Your task to perform on an android device: Search for Mexican restaurants on Maps Image 0: 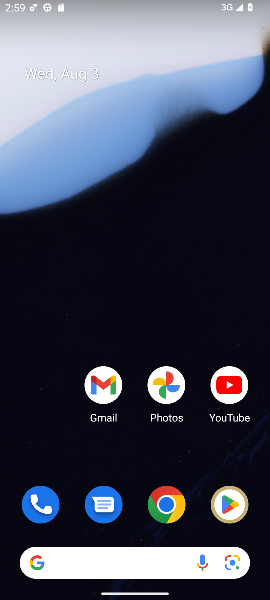
Step 0: drag from (51, 436) to (68, 90)
Your task to perform on an android device: Search for Mexican restaurants on Maps Image 1: 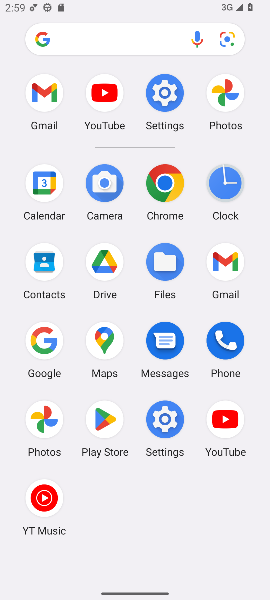
Step 1: click (109, 346)
Your task to perform on an android device: Search for Mexican restaurants on Maps Image 2: 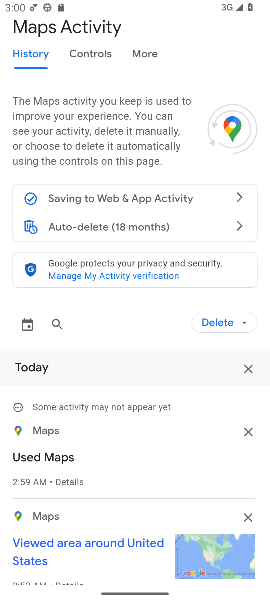
Step 2: press back button
Your task to perform on an android device: Search for Mexican restaurants on Maps Image 3: 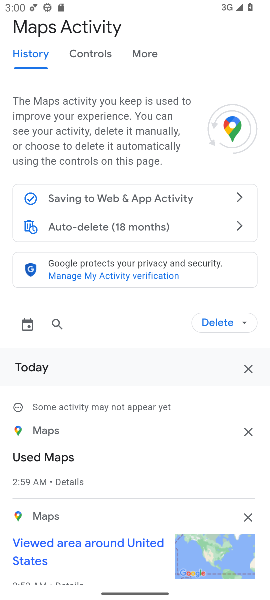
Step 3: press back button
Your task to perform on an android device: Search for Mexican restaurants on Maps Image 4: 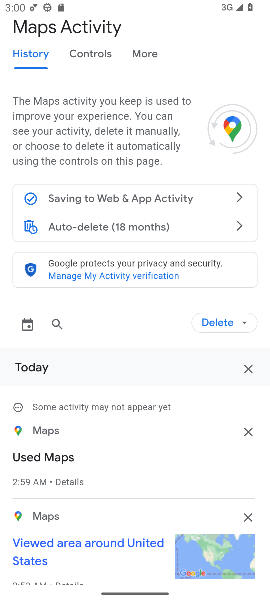
Step 4: press back button
Your task to perform on an android device: Search for Mexican restaurants on Maps Image 5: 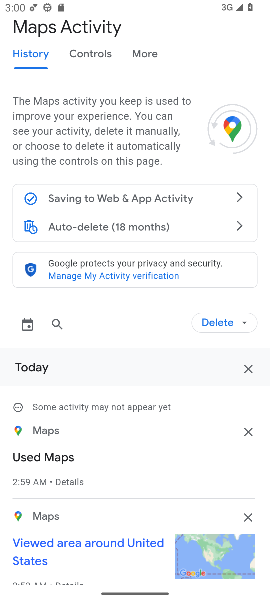
Step 5: press back button
Your task to perform on an android device: Search for Mexican restaurants on Maps Image 6: 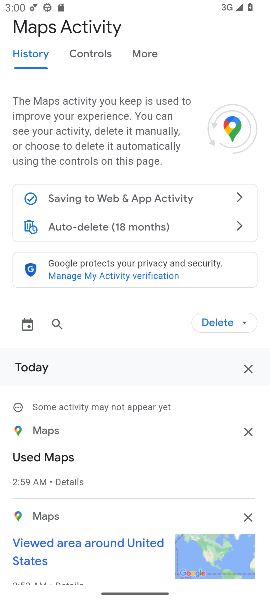
Step 6: press back button
Your task to perform on an android device: Search for Mexican restaurants on Maps Image 7: 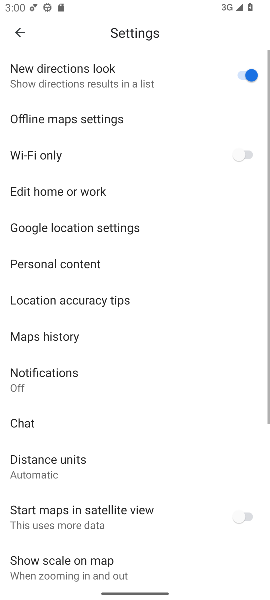
Step 7: press back button
Your task to perform on an android device: Search for Mexican restaurants on Maps Image 8: 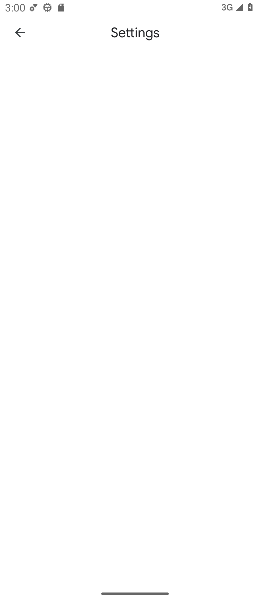
Step 8: press home button
Your task to perform on an android device: Search for Mexican restaurants on Maps Image 9: 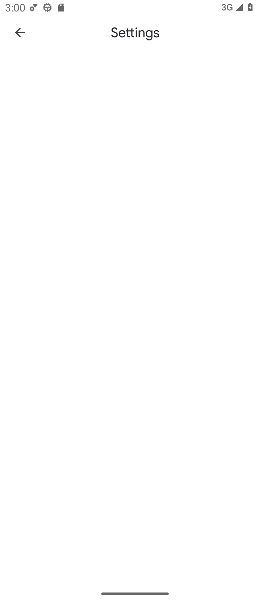
Step 9: press home button
Your task to perform on an android device: Search for Mexican restaurants on Maps Image 10: 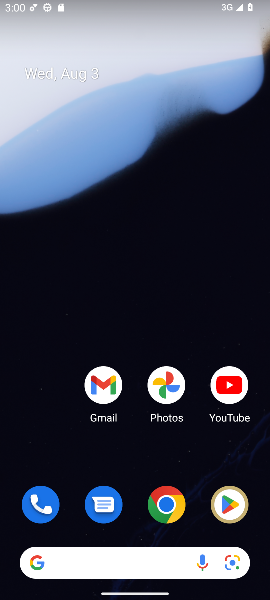
Step 10: drag from (133, 450) to (126, 128)
Your task to perform on an android device: Search for Mexican restaurants on Maps Image 11: 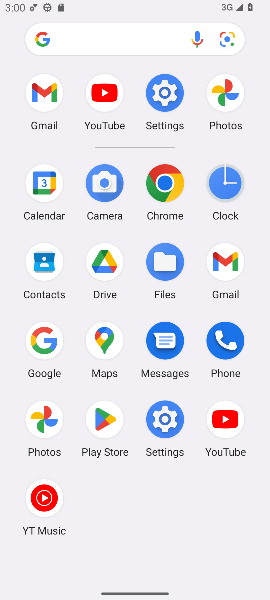
Step 11: click (109, 350)
Your task to perform on an android device: Search for Mexican restaurants on Maps Image 12: 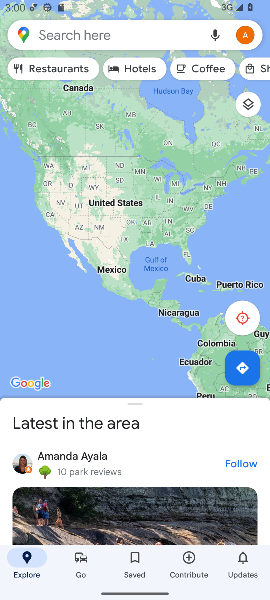
Step 12: click (138, 35)
Your task to perform on an android device: Search for Mexican restaurants on Maps Image 13: 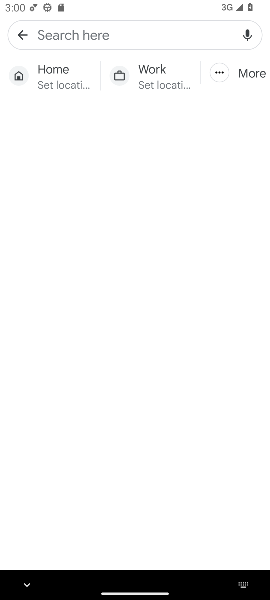
Step 13: type "Mexican restaurants"
Your task to perform on an android device: Search for Mexican restaurants on Maps Image 14: 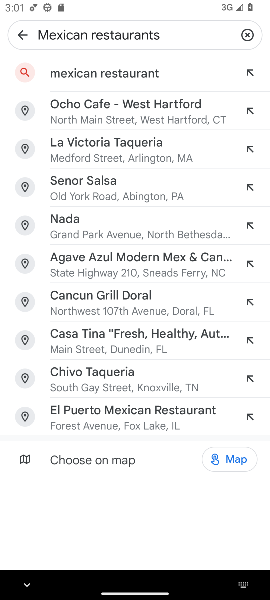
Step 14: press enter
Your task to perform on an android device: Search for Mexican restaurants on Maps Image 15: 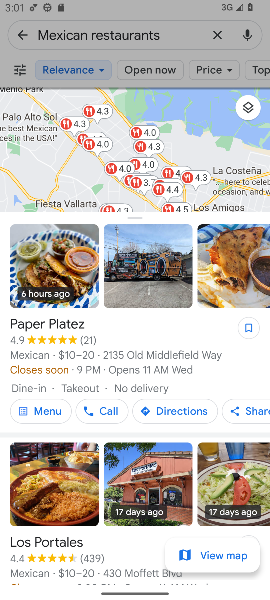
Step 15: task complete